Your task to perform on an android device: toggle javascript in the chrome app Image 0: 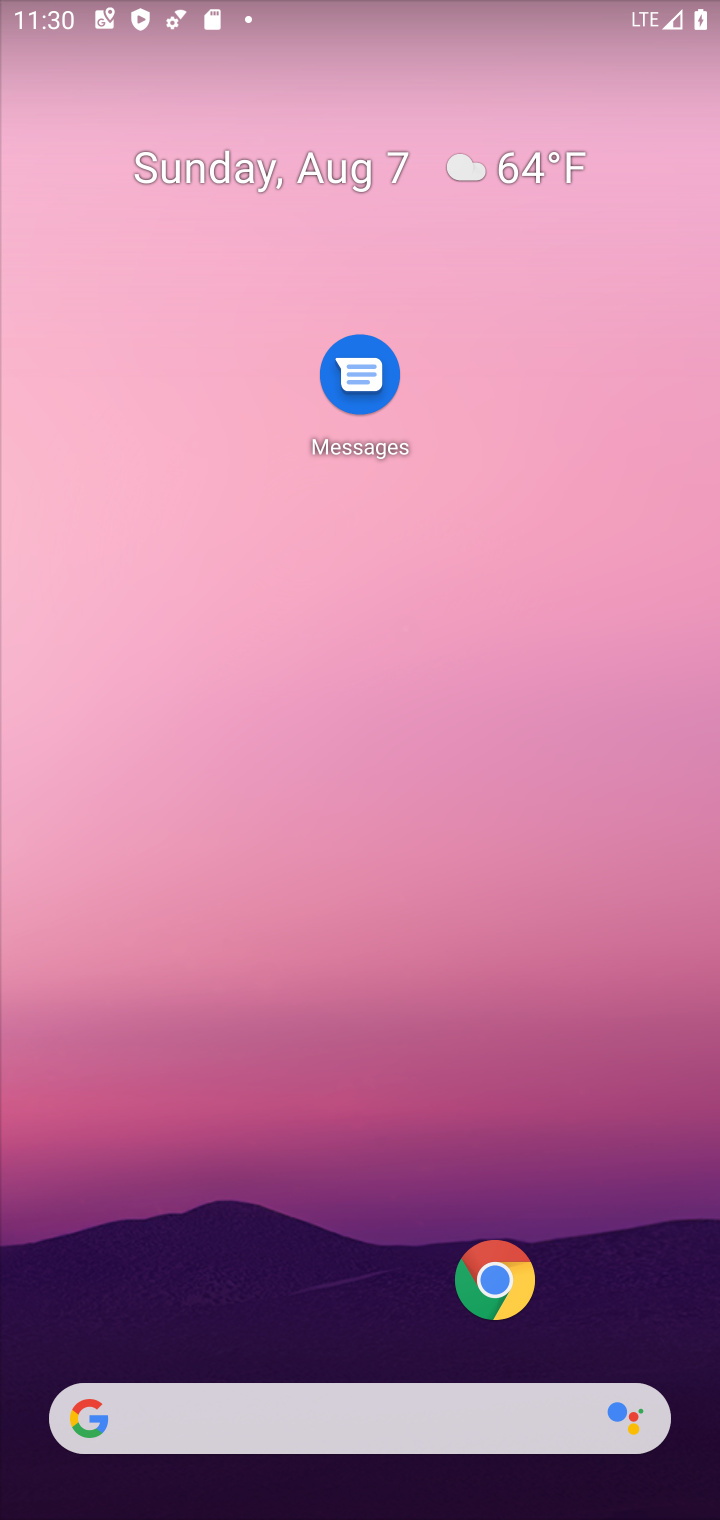
Step 0: click (515, 1287)
Your task to perform on an android device: toggle javascript in the chrome app Image 1: 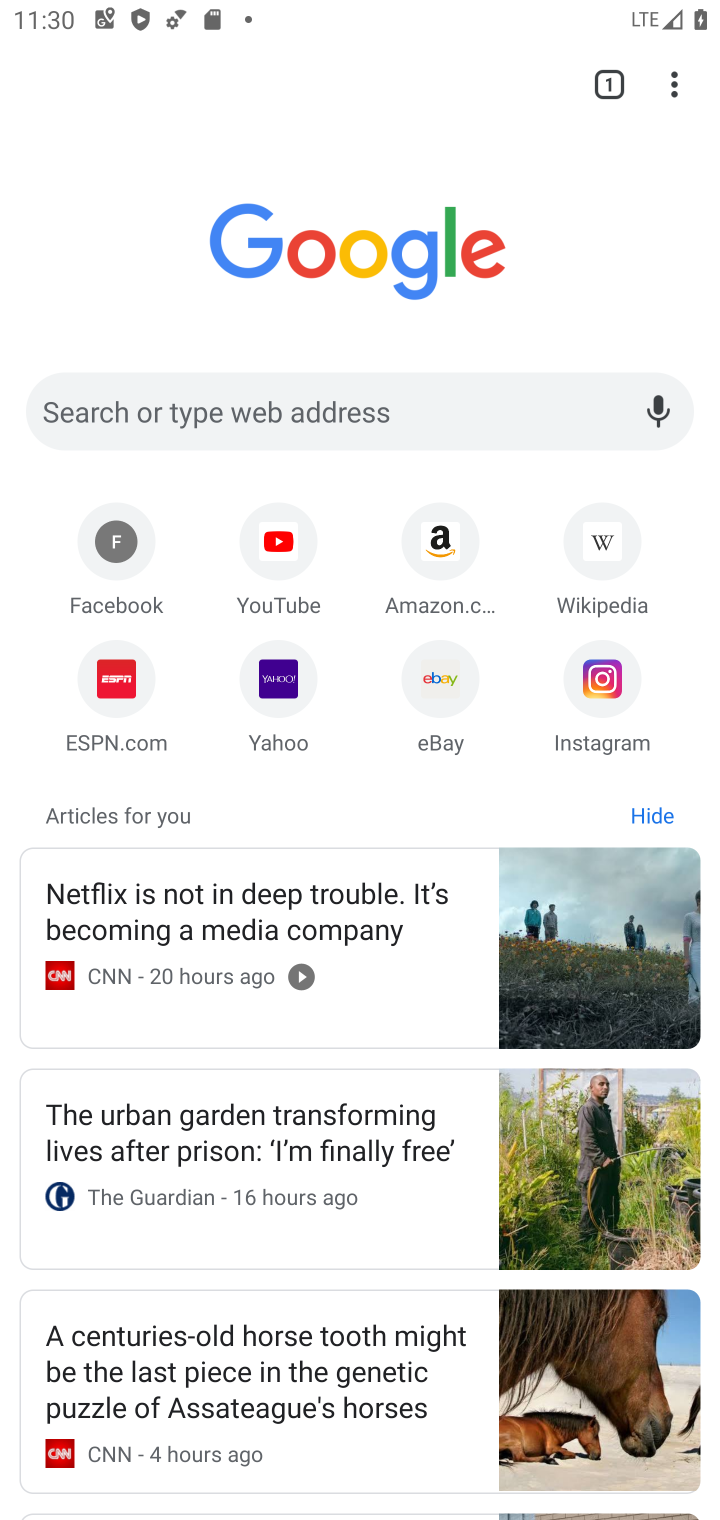
Step 1: drag from (673, 69) to (391, 707)
Your task to perform on an android device: toggle javascript in the chrome app Image 2: 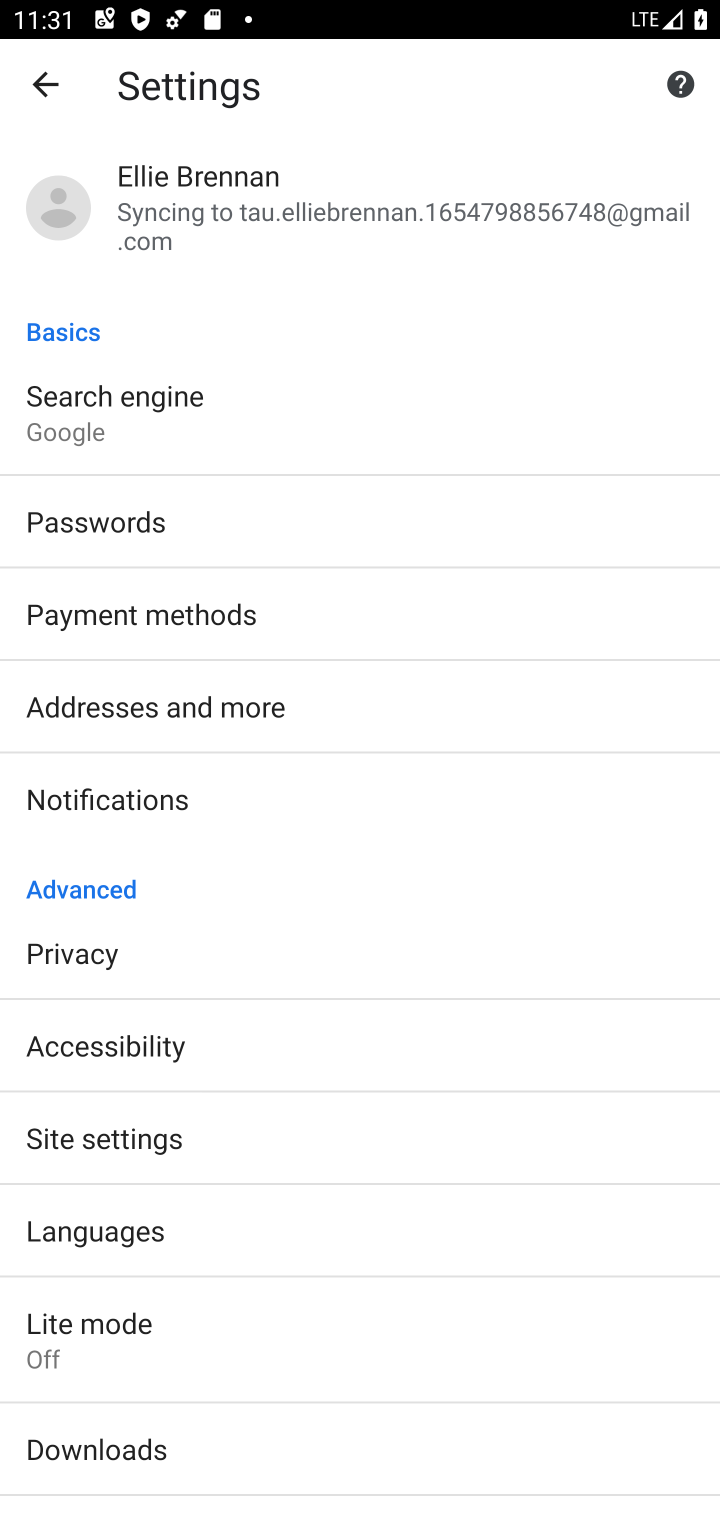
Step 2: click (84, 1144)
Your task to perform on an android device: toggle javascript in the chrome app Image 3: 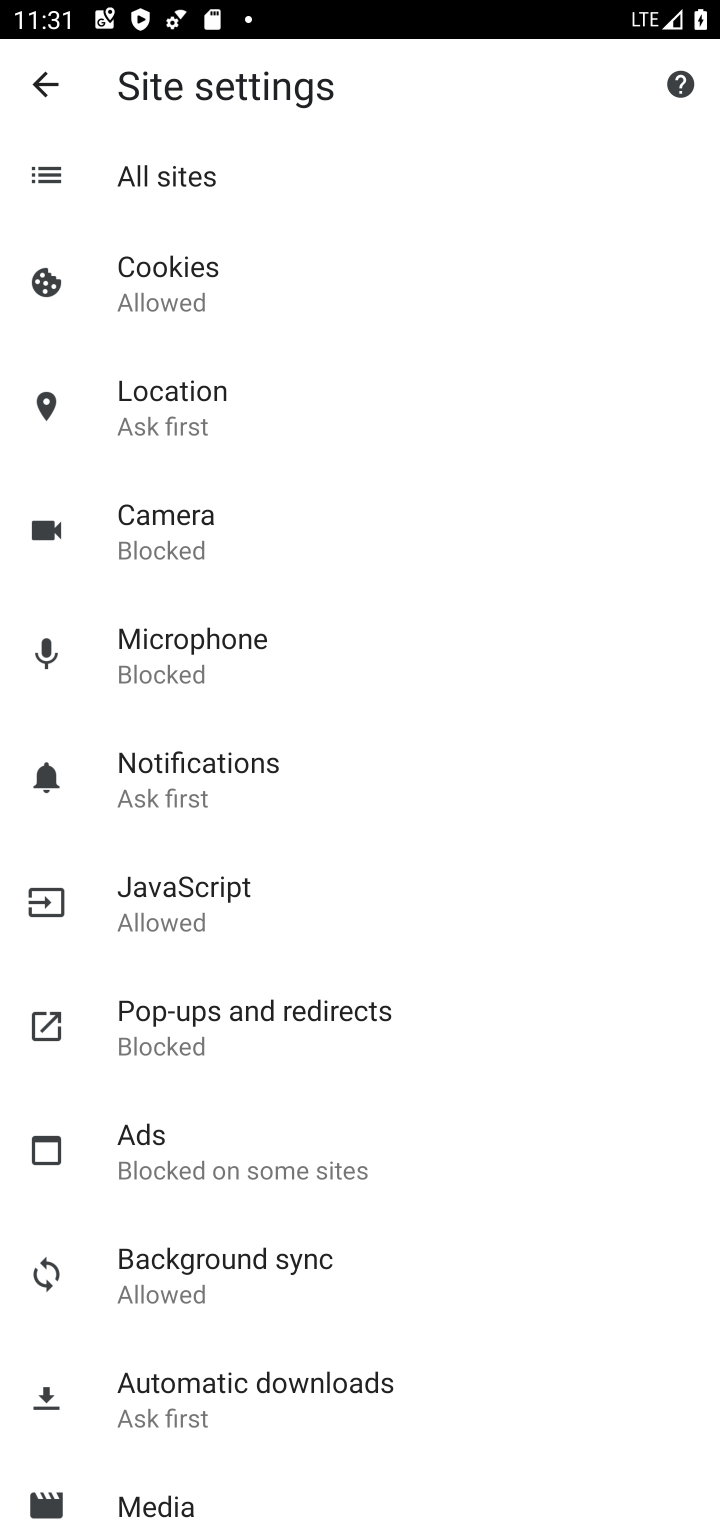
Step 3: click (232, 889)
Your task to perform on an android device: toggle javascript in the chrome app Image 4: 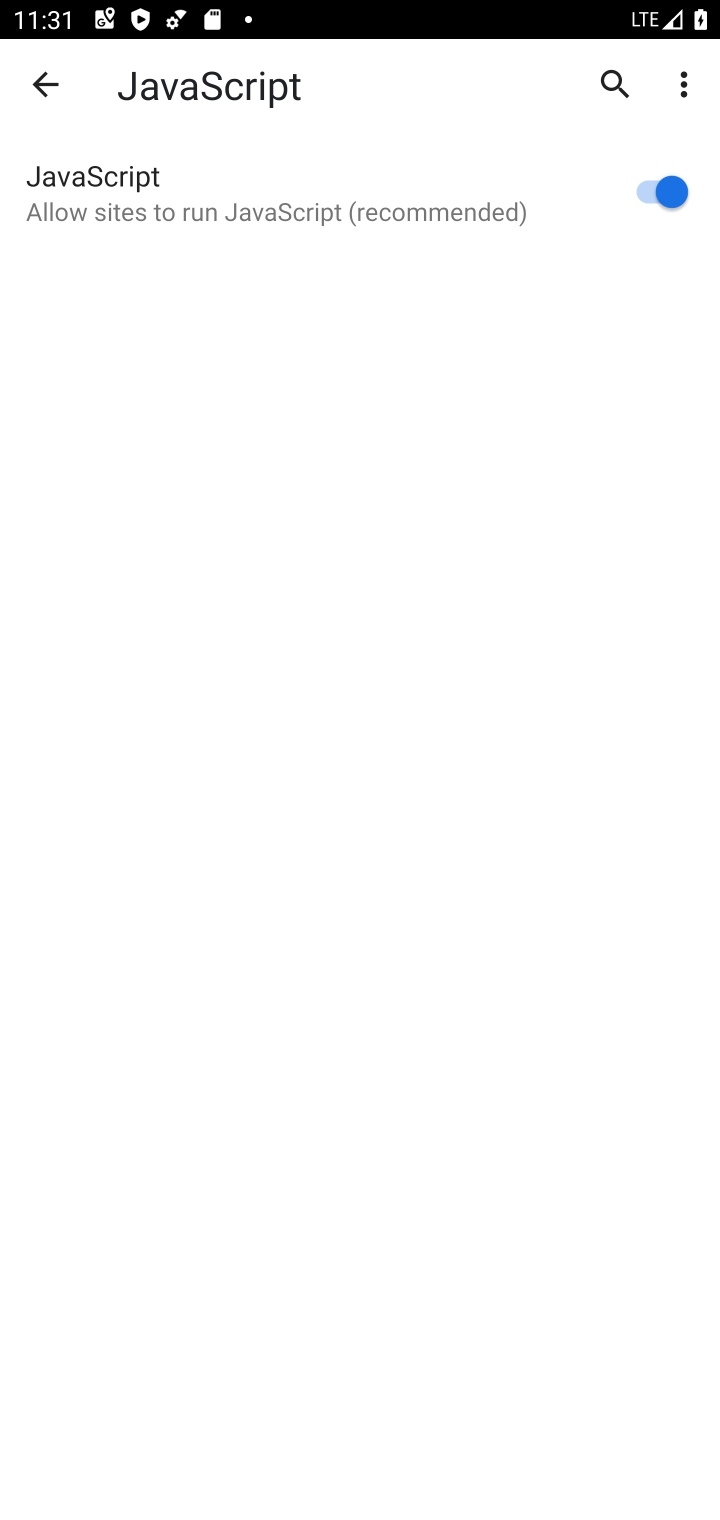
Step 4: click (662, 210)
Your task to perform on an android device: toggle javascript in the chrome app Image 5: 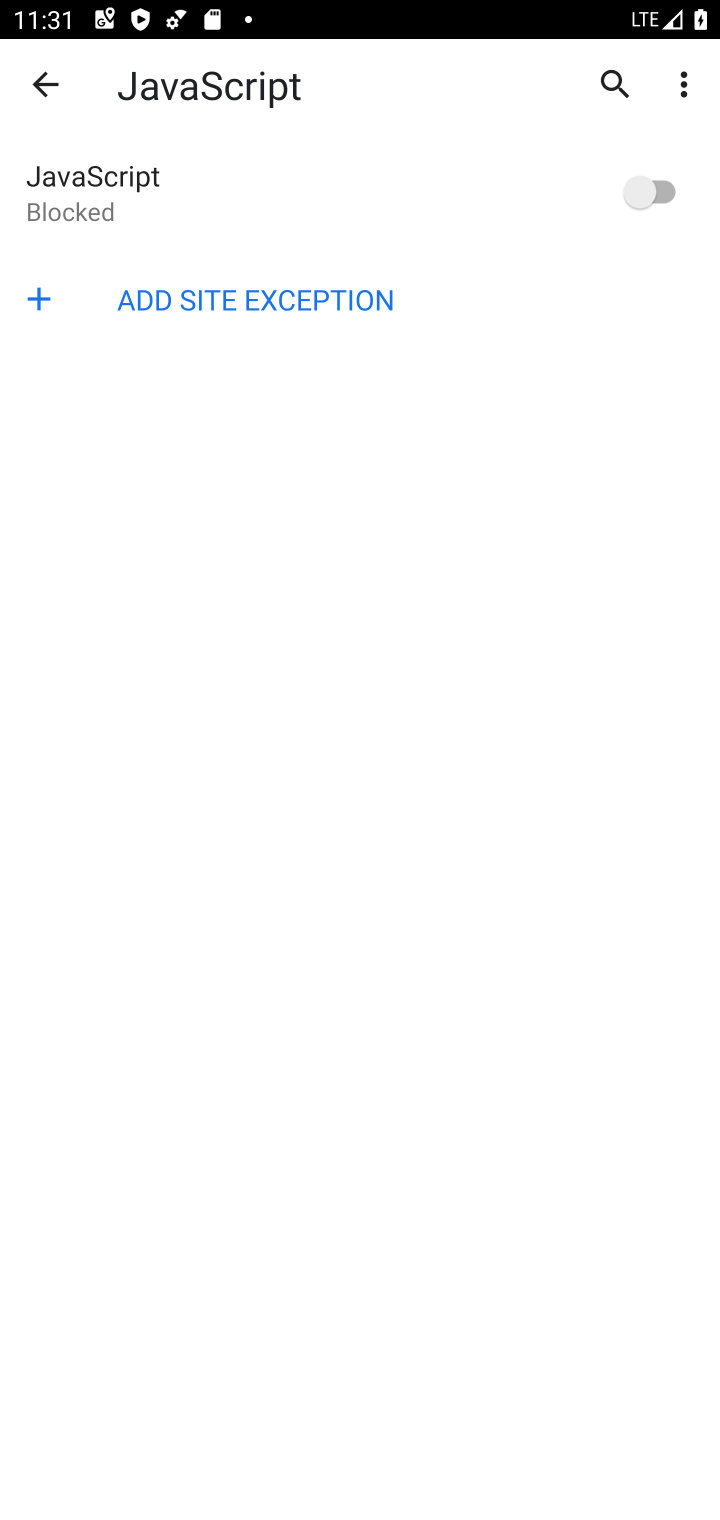
Step 5: task complete